Your task to perform on an android device: Search for Italian restaurants on Maps Image 0: 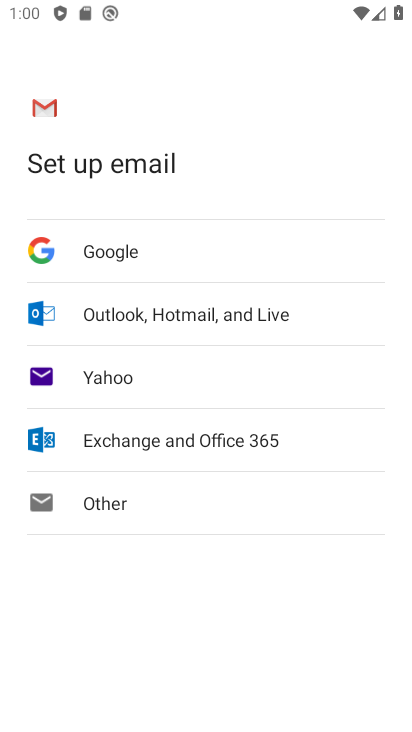
Step 0: press home button
Your task to perform on an android device: Search for Italian restaurants on Maps Image 1: 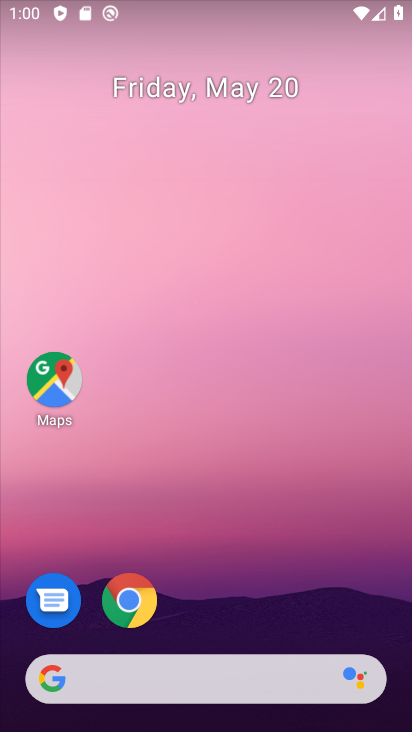
Step 1: click (45, 368)
Your task to perform on an android device: Search for Italian restaurants on Maps Image 2: 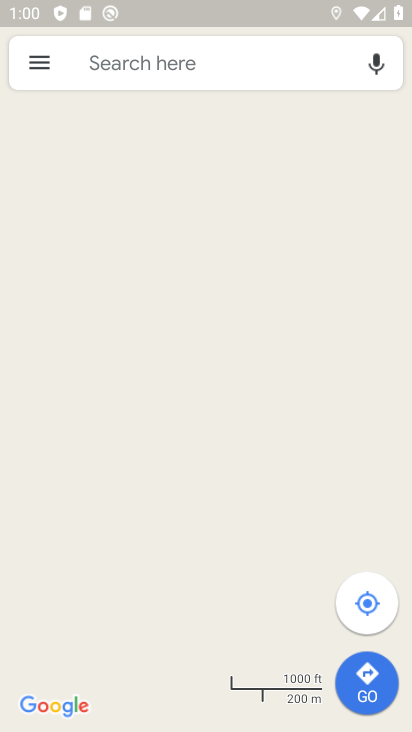
Step 2: click (141, 62)
Your task to perform on an android device: Search for Italian restaurants on Maps Image 3: 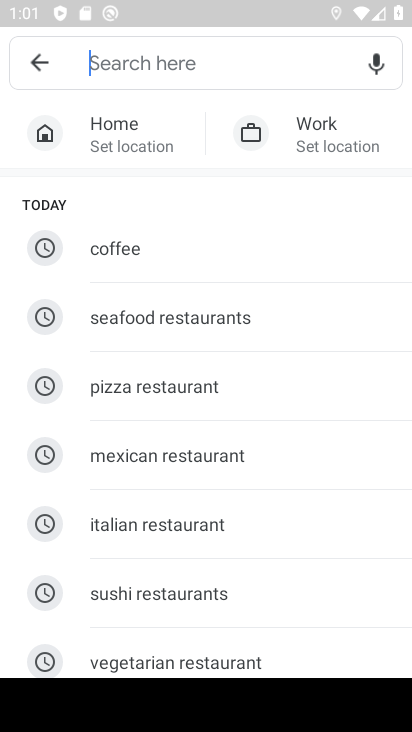
Step 3: type "italian restaurants"
Your task to perform on an android device: Search for Italian restaurants on Maps Image 4: 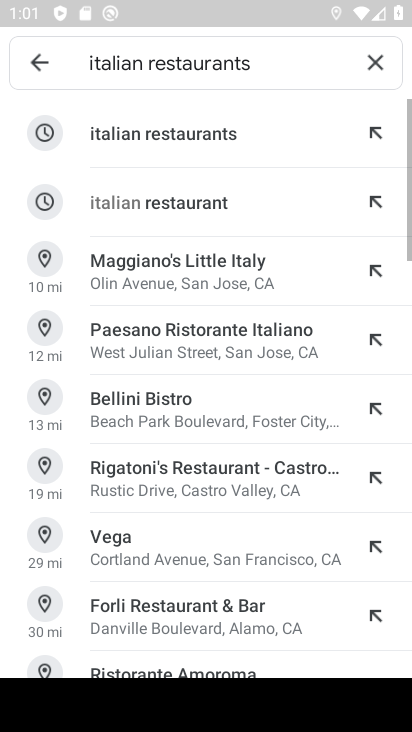
Step 4: click (186, 130)
Your task to perform on an android device: Search for Italian restaurants on Maps Image 5: 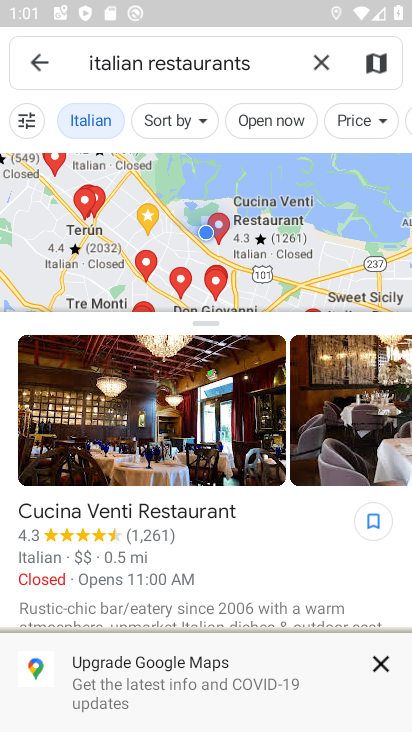
Step 5: task complete